Your task to perform on an android device: Open the web browser Image 0: 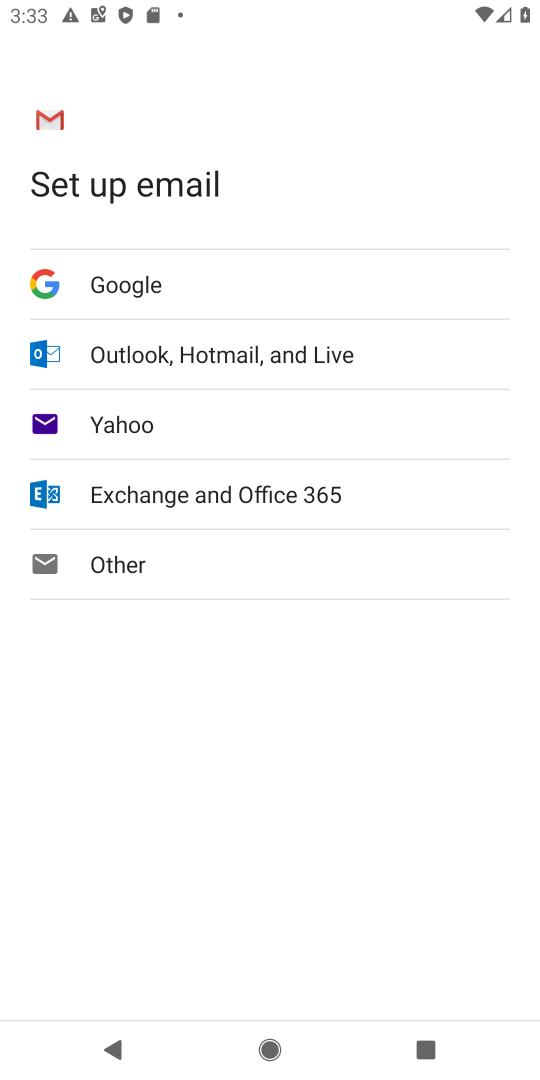
Step 0: press back button
Your task to perform on an android device: Open the web browser Image 1: 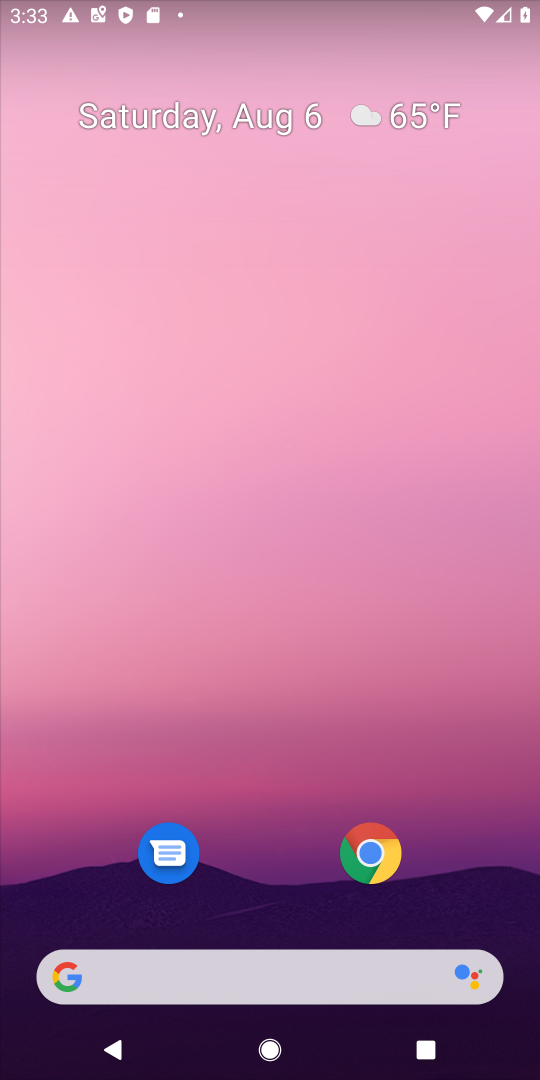
Step 1: click (362, 852)
Your task to perform on an android device: Open the web browser Image 2: 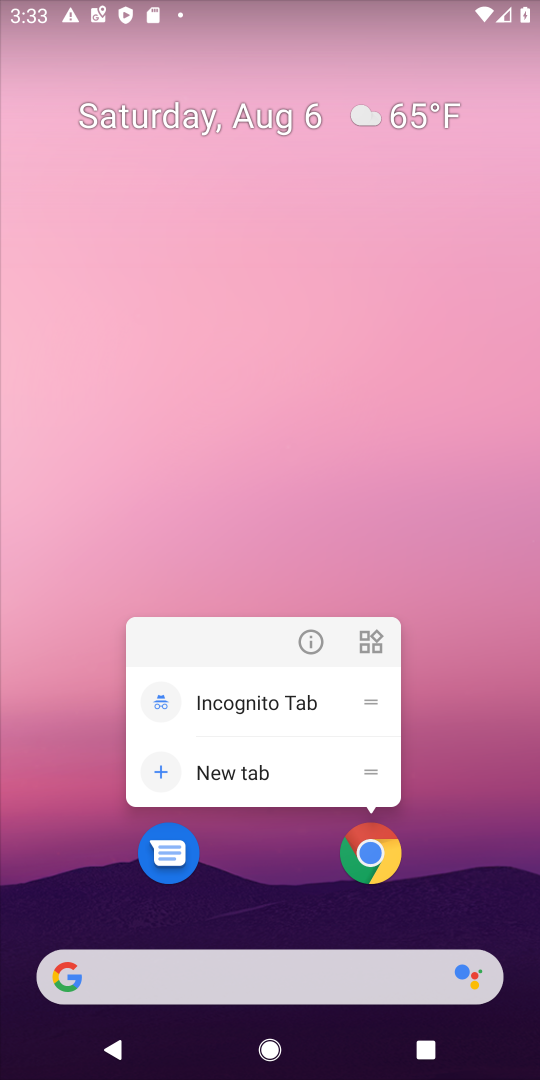
Step 2: click (378, 856)
Your task to perform on an android device: Open the web browser Image 3: 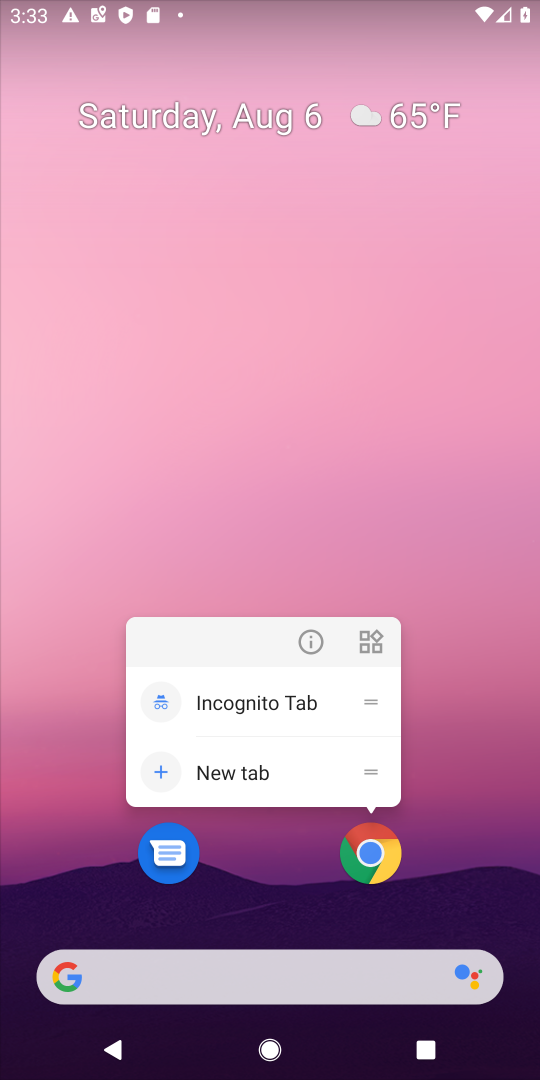
Step 3: click (375, 848)
Your task to perform on an android device: Open the web browser Image 4: 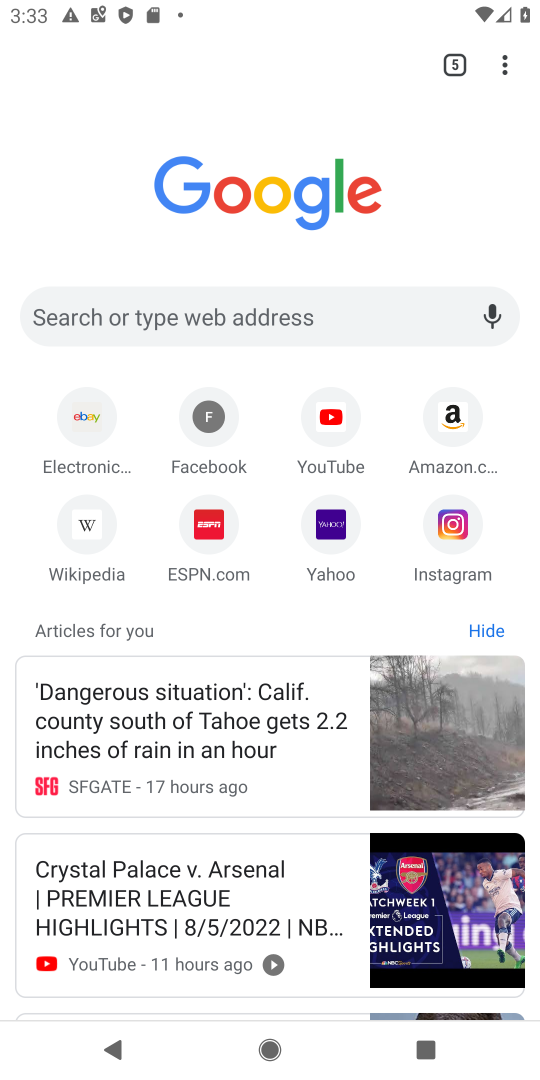
Step 4: task complete